Your task to perform on an android device: Open the Play Movies app and select the watchlist tab. Image 0: 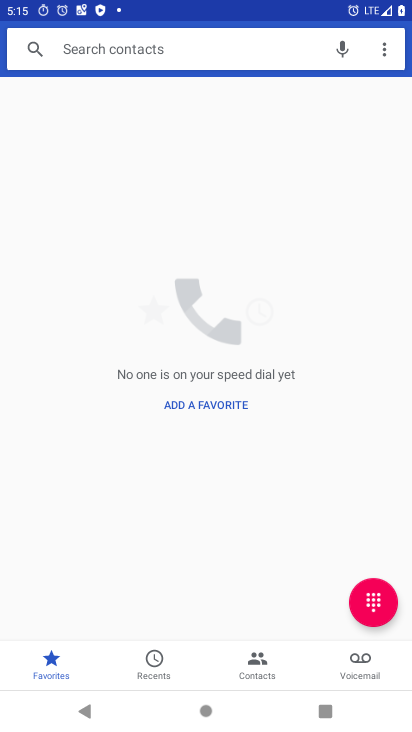
Step 0: press home button
Your task to perform on an android device: Open the Play Movies app and select the watchlist tab. Image 1: 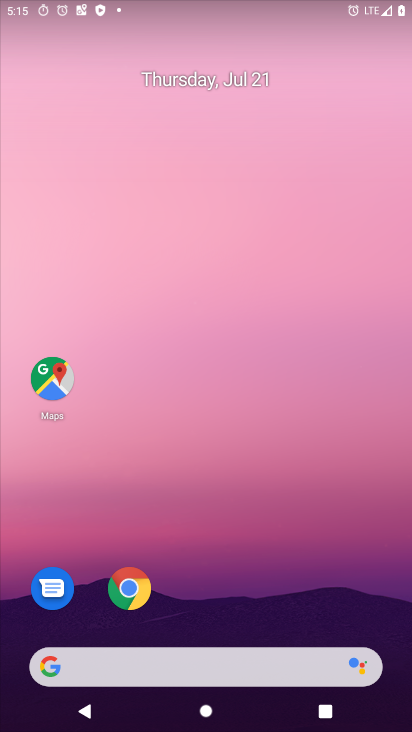
Step 1: drag from (316, 572) to (349, 81)
Your task to perform on an android device: Open the Play Movies app and select the watchlist tab. Image 2: 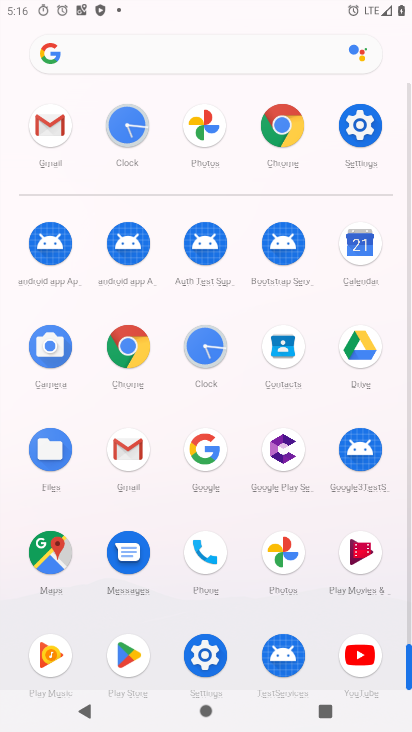
Step 2: click (359, 545)
Your task to perform on an android device: Open the Play Movies app and select the watchlist tab. Image 3: 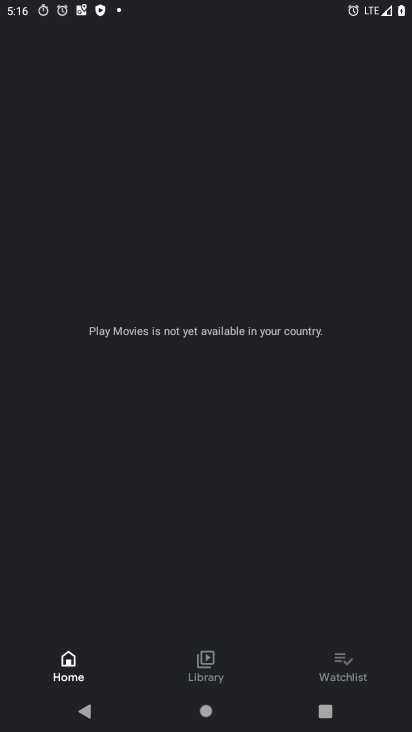
Step 3: click (324, 664)
Your task to perform on an android device: Open the Play Movies app and select the watchlist tab. Image 4: 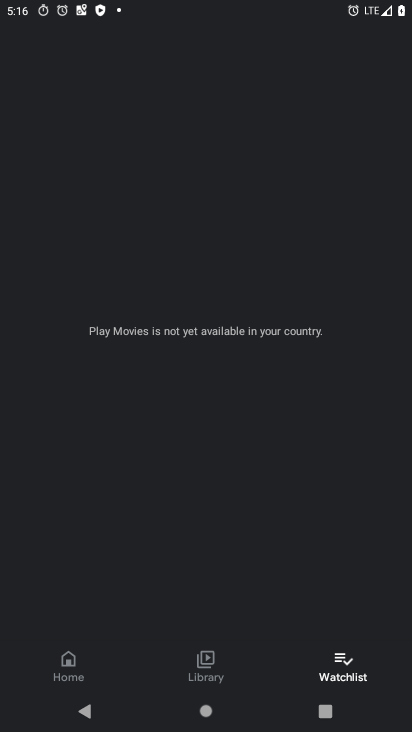
Step 4: task complete